Your task to perform on an android device: Go to network settings Image 0: 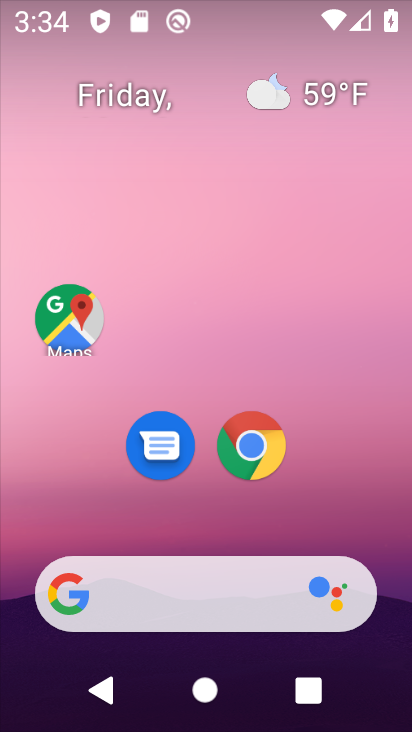
Step 0: drag from (398, 624) to (279, 113)
Your task to perform on an android device: Go to network settings Image 1: 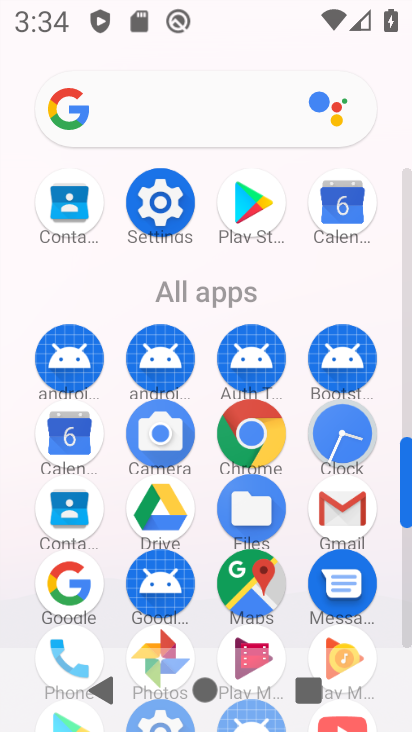
Step 1: click (405, 638)
Your task to perform on an android device: Go to network settings Image 2: 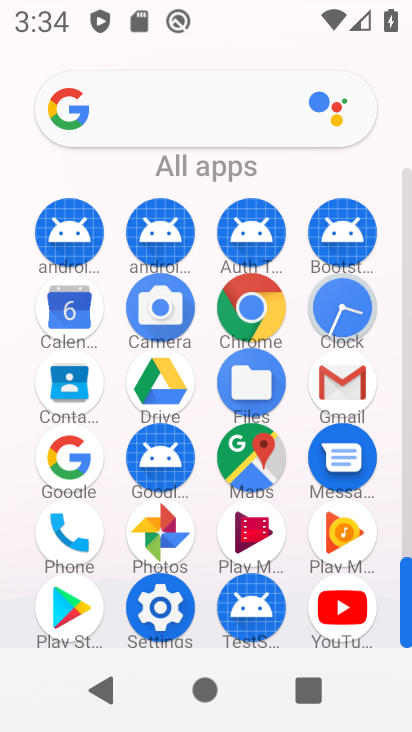
Step 2: click (161, 604)
Your task to perform on an android device: Go to network settings Image 3: 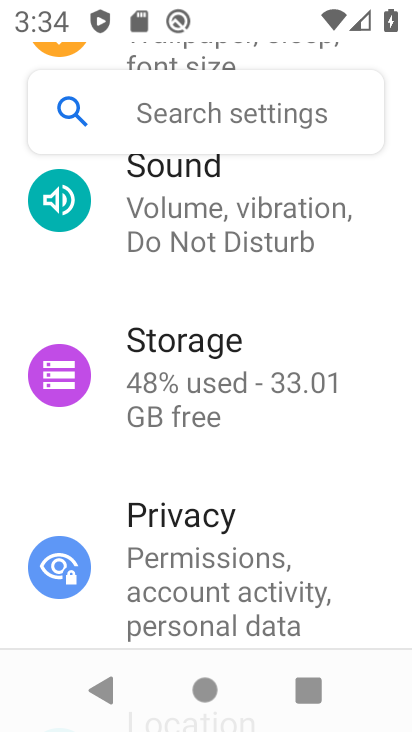
Step 3: drag from (345, 328) to (330, 537)
Your task to perform on an android device: Go to network settings Image 4: 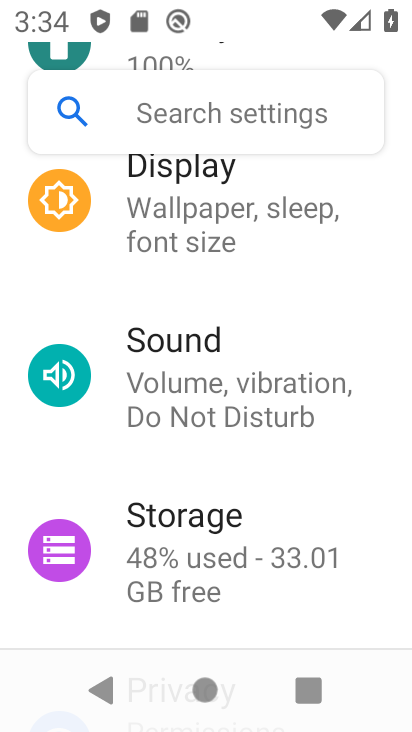
Step 4: drag from (343, 271) to (346, 534)
Your task to perform on an android device: Go to network settings Image 5: 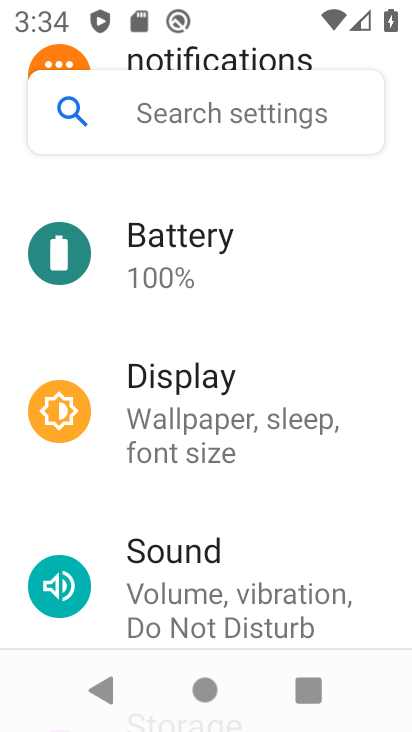
Step 5: drag from (334, 265) to (326, 560)
Your task to perform on an android device: Go to network settings Image 6: 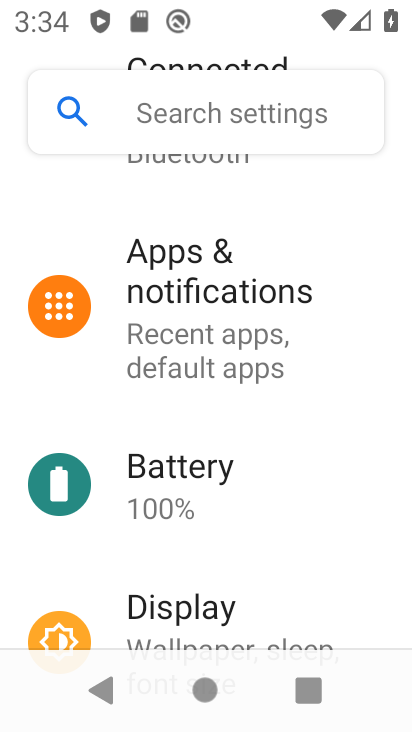
Step 6: drag from (323, 251) to (301, 527)
Your task to perform on an android device: Go to network settings Image 7: 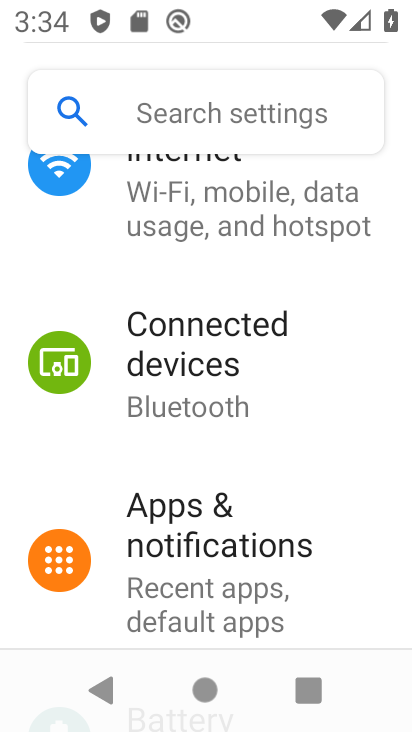
Step 7: drag from (290, 274) to (277, 515)
Your task to perform on an android device: Go to network settings Image 8: 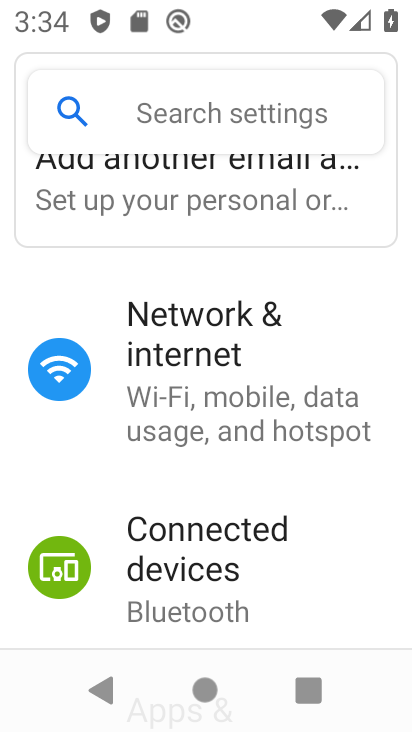
Step 8: click (173, 353)
Your task to perform on an android device: Go to network settings Image 9: 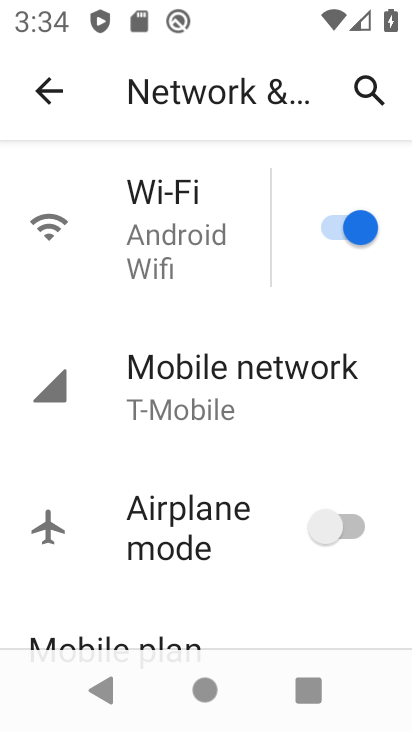
Step 9: click (190, 399)
Your task to perform on an android device: Go to network settings Image 10: 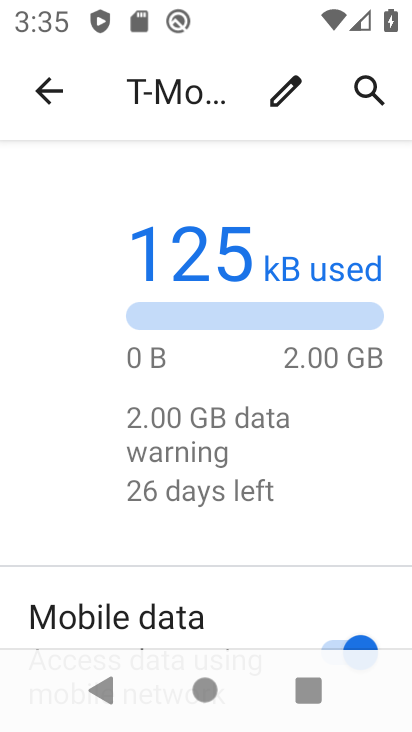
Step 10: drag from (256, 586) to (240, 223)
Your task to perform on an android device: Go to network settings Image 11: 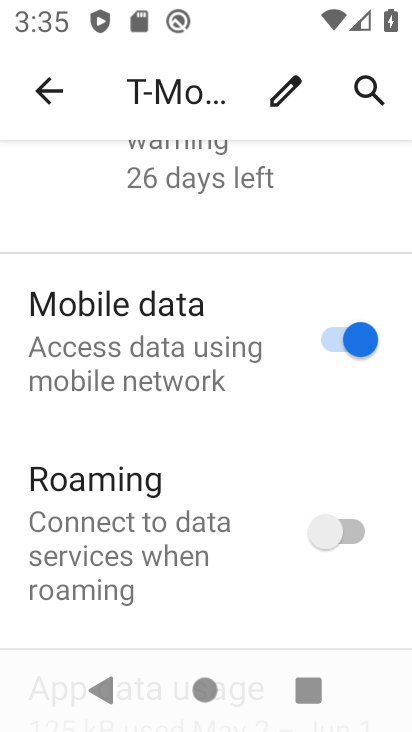
Step 11: drag from (275, 550) to (224, 249)
Your task to perform on an android device: Go to network settings Image 12: 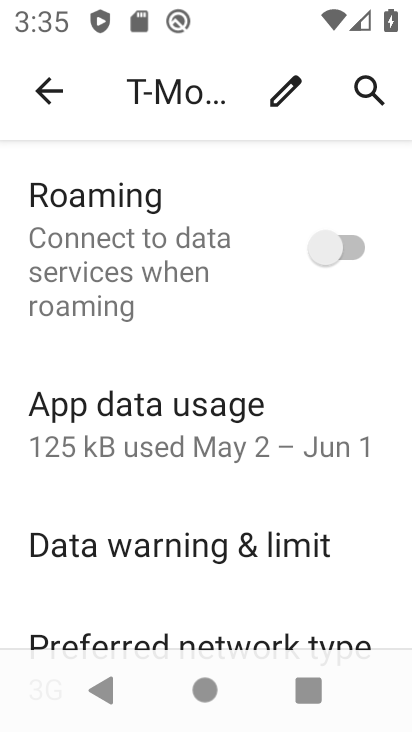
Step 12: drag from (227, 542) to (210, 179)
Your task to perform on an android device: Go to network settings Image 13: 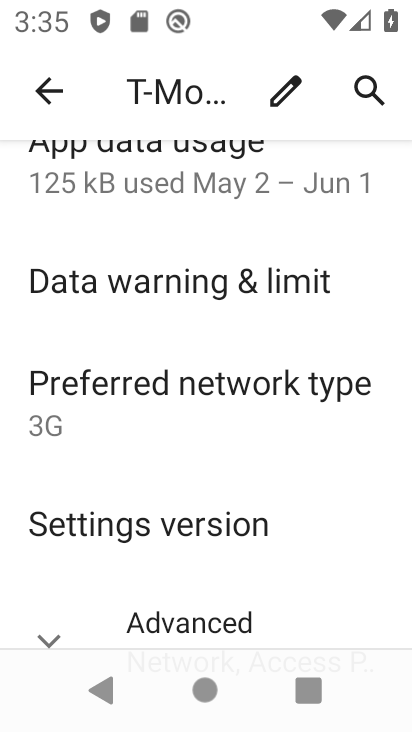
Step 13: drag from (210, 436) to (168, 237)
Your task to perform on an android device: Go to network settings Image 14: 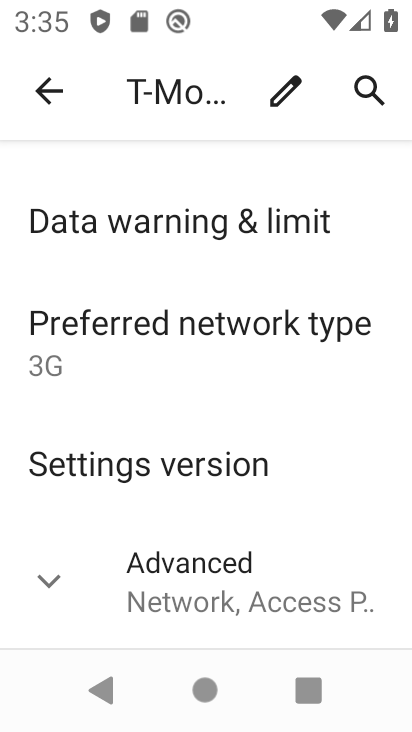
Step 14: click (43, 580)
Your task to perform on an android device: Go to network settings Image 15: 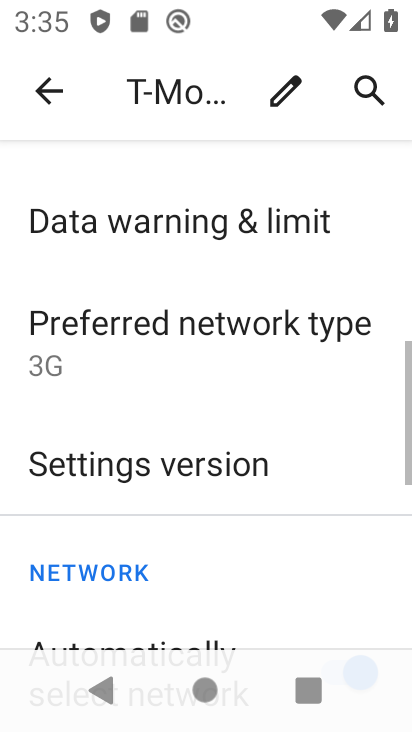
Step 15: task complete